Your task to perform on an android device: add a contact in the contacts app Image 0: 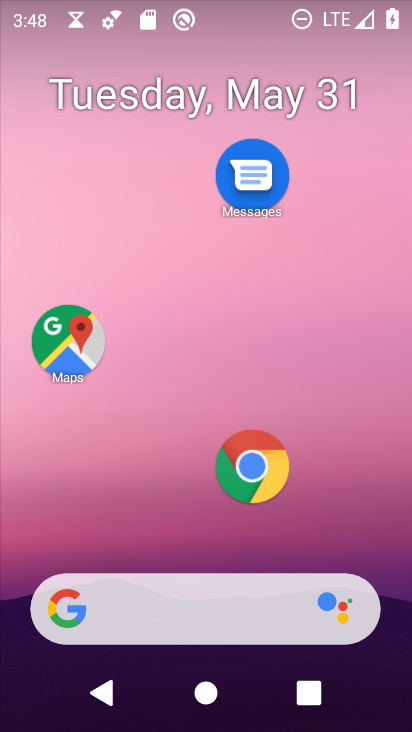
Step 0: drag from (165, 525) to (215, 96)
Your task to perform on an android device: add a contact in the contacts app Image 1: 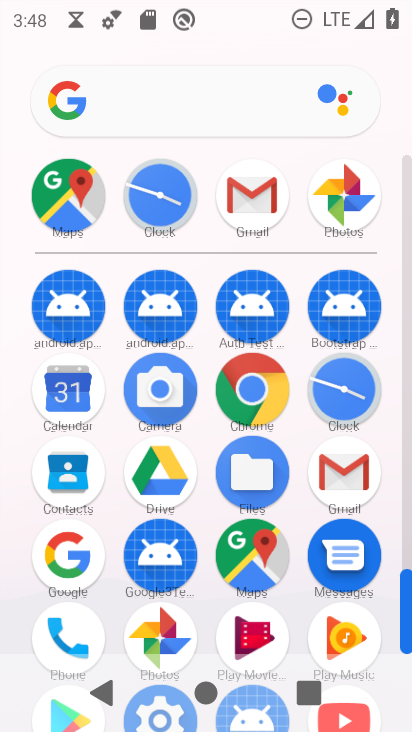
Step 1: click (71, 475)
Your task to perform on an android device: add a contact in the contacts app Image 2: 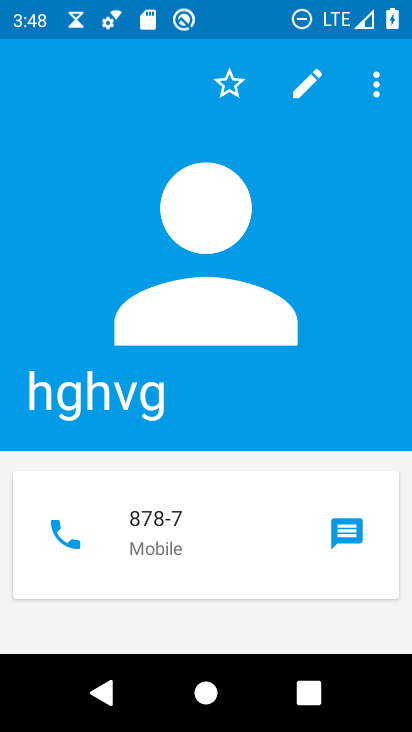
Step 2: press back button
Your task to perform on an android device: add a contact in the contacts app Image 3: 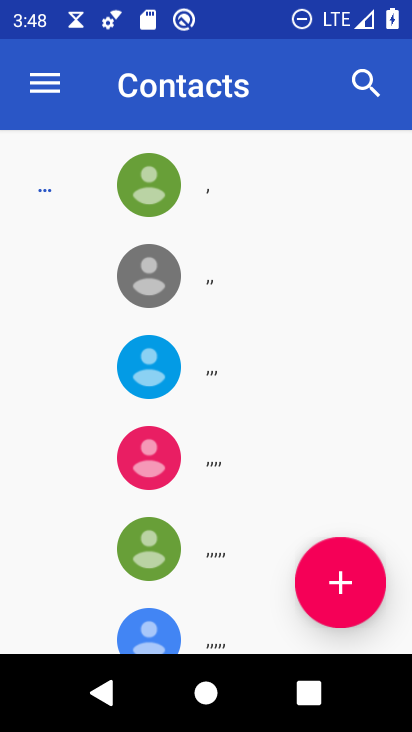
Step 3: click (350, 573)
Your task to perform on an android device: add a contact in the contacts app Image 4: 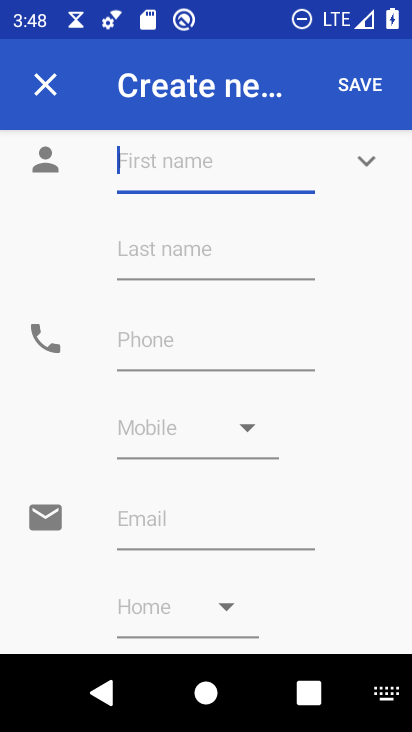
Step 4: click (164, 166)
Your task to perform on an android device: add a contact in the contacts app Image 5: 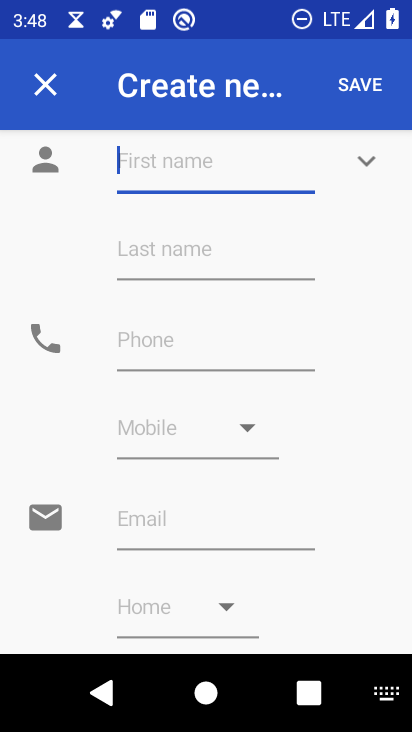
Step 5: type "vbdb"
Your task to perform on an android device: add a contact in the contacts app Image 6: 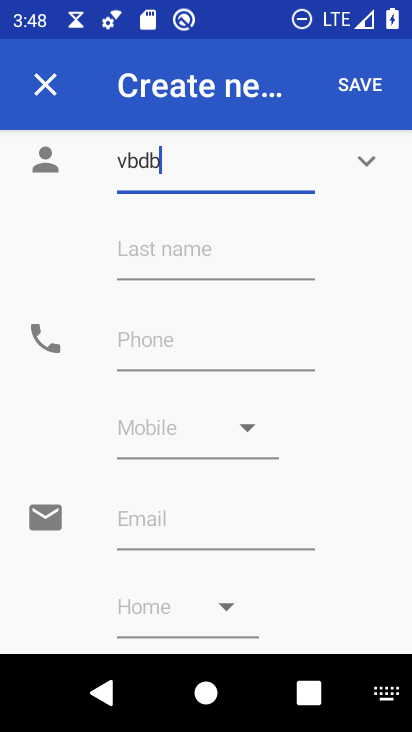
Step 6: click (159, 337)
Your task to perform on an android device: add a contact in the contacts app Image 7: 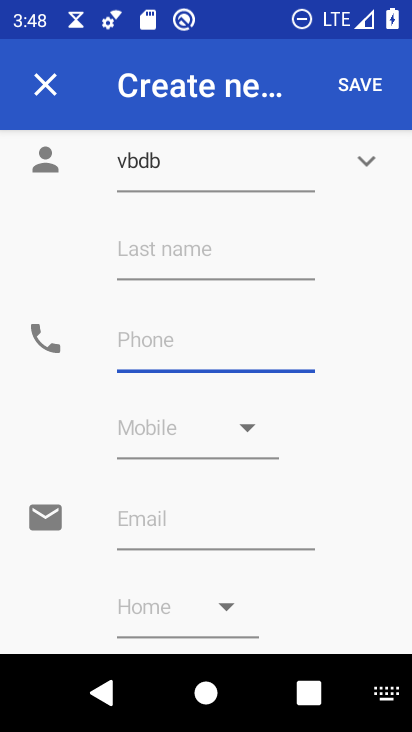
Step 7: type "5465"
Your task to perform on an android device: add a contact in the contacts app Image 8: 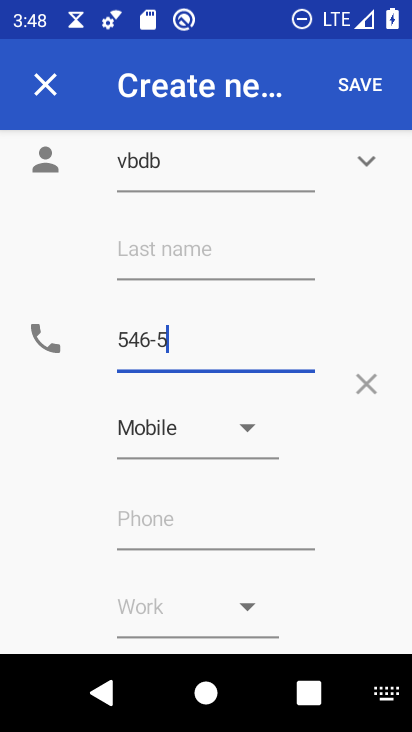
Step 8: click (359, 76)
Your task to perform on an android device: add a contact in the contacts app Image 9: 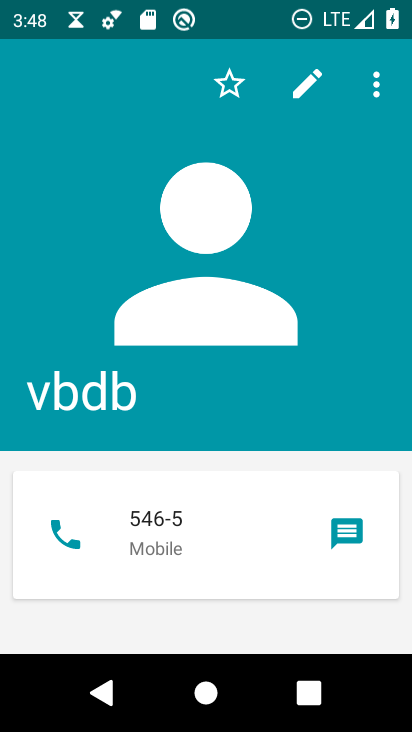
Step 9: task complete